Your task to perform on an android device: check the backup settings in the google photos Image 0: 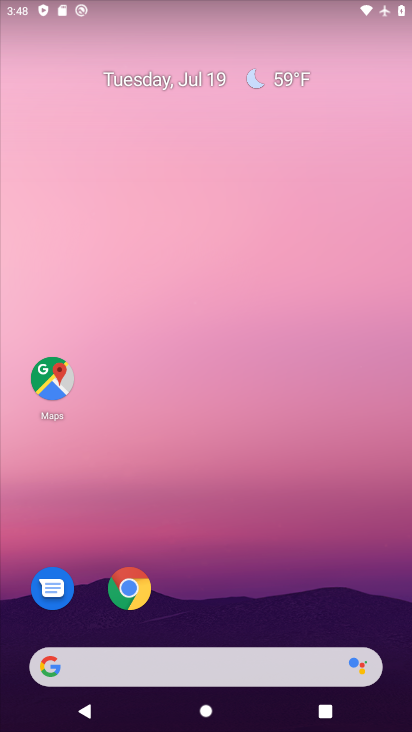
Step 0: press home button
Your task to perform on an android device: check the backup settings in the google photos Image 1: 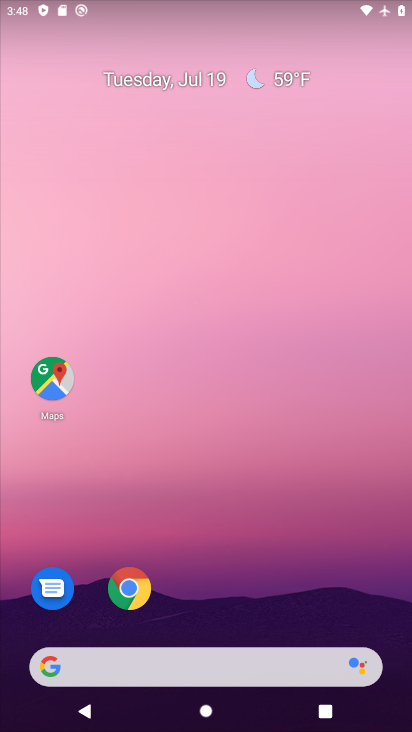
Step 1: drag from (271, 627) to (307, 157)
Your task to perform on an android device: check the backup settings in the google photos Image 2: 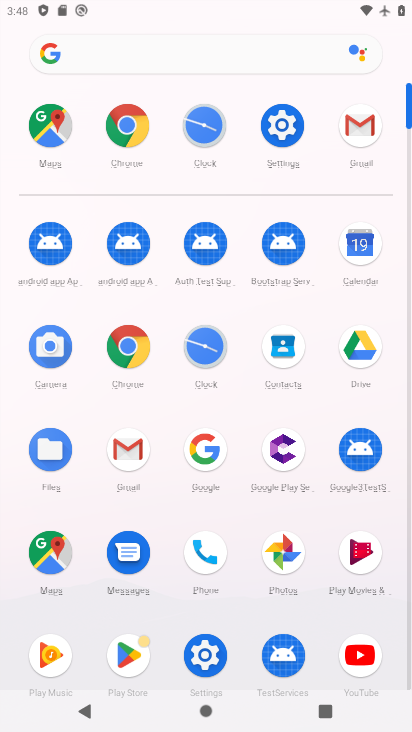
Step 2: click (288, 566)
Your task to perform on an android device: check the backup settings in the google photos Image 3: 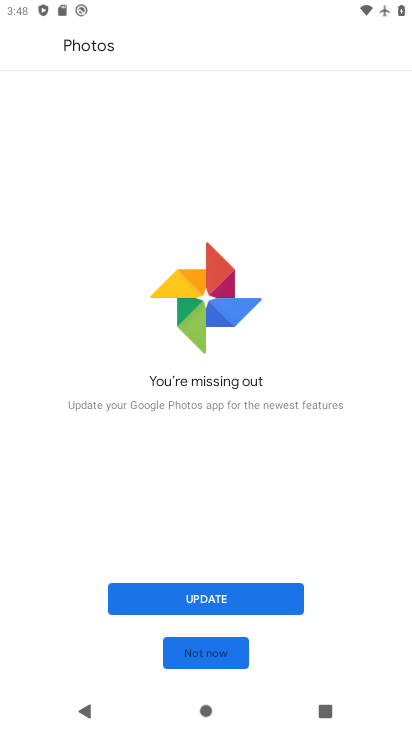
Step 3: click (213, 605)
Your task to perform on an android device: check the backup settings in the google photos Image 4: 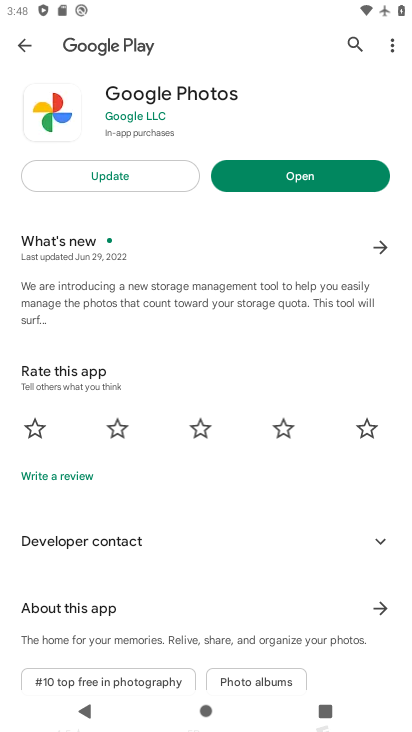
Step 4: click (134, 182)
Your task to perform on an android device: check the backup settings in the google photos Image 5: 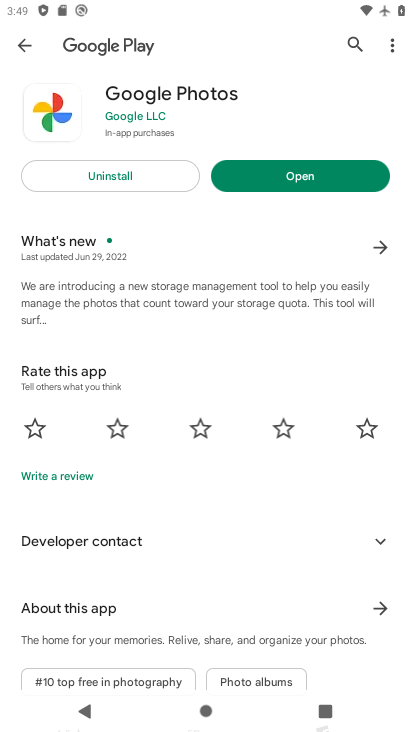
Step 5: click (276, 176)
Your task to perform on an android device: check the backup settings in the google photos Image 6: 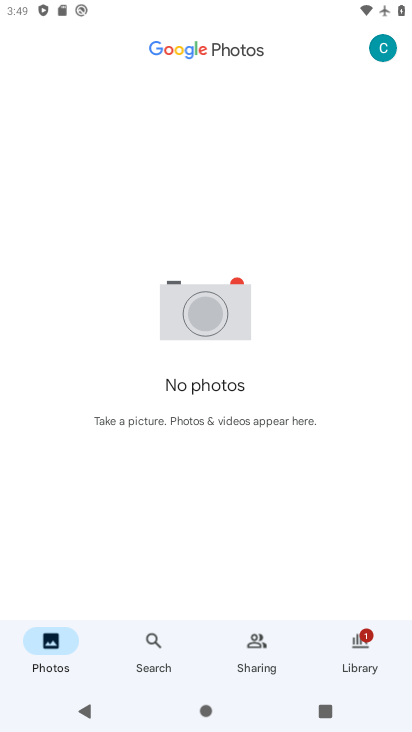
Step 6: click (381, 48)
Your task to perform on an android device: check the backup settings in the google photos Image 7: 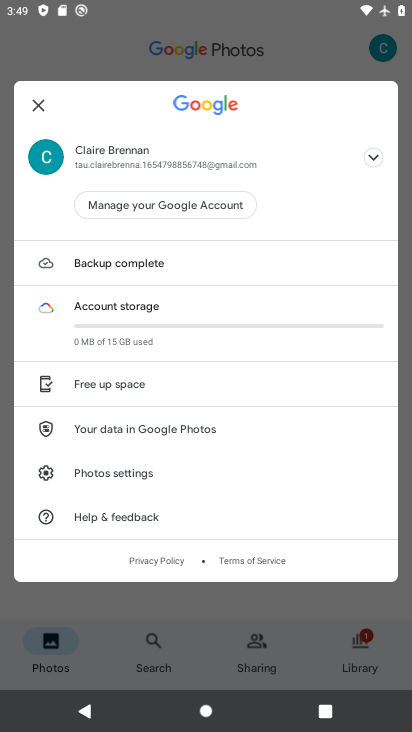
Step 7: click (119, 474)
Your task to perform on an android device: check the backup settings in the google photos Image 8: 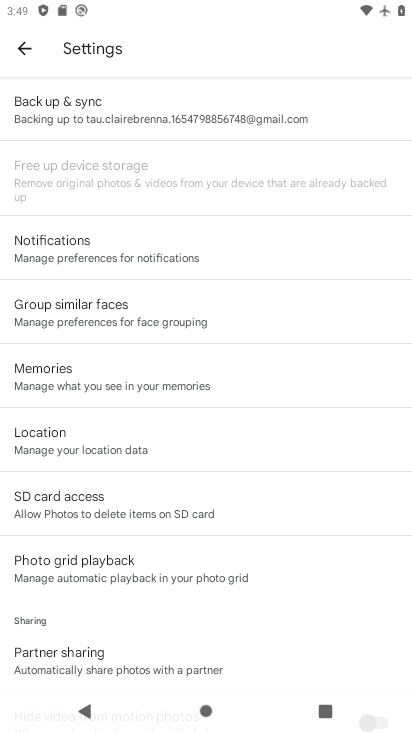
Step 8: click (64, 106)
Your task to perform on an android device: check the backup settings in the google photos Image 9: 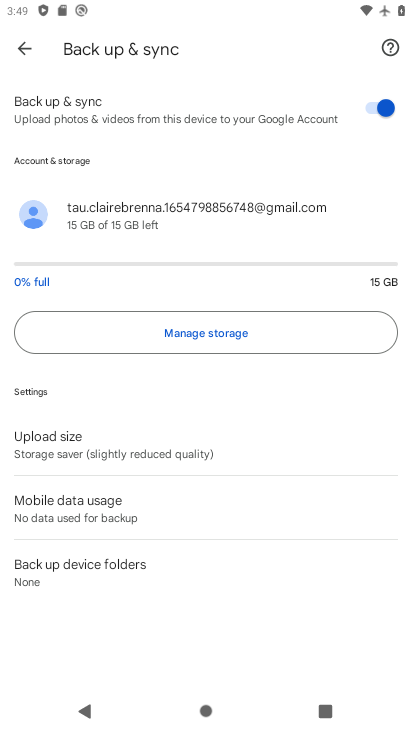
Step 9: task complete